Your task to perform on an android device: Do I have any events today? Image 0: 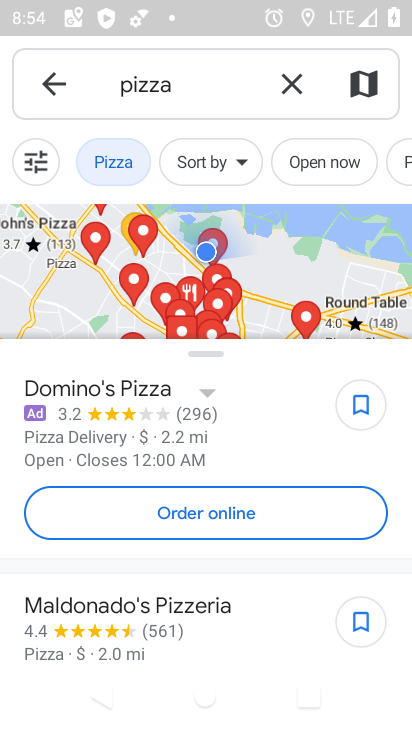
Step 0: press home button
Your task to perform on an android device: Do I have any events today? Image 1: 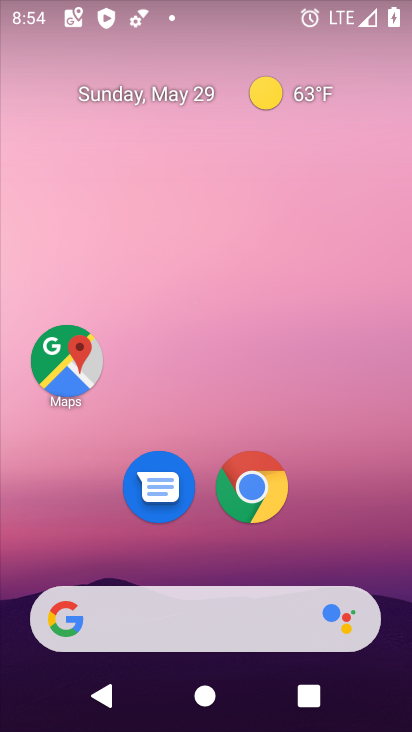
Step 1: drag from (256, 601) to (262, 106)
Your task to perform on an android device: Do I have any events today? Image 2: 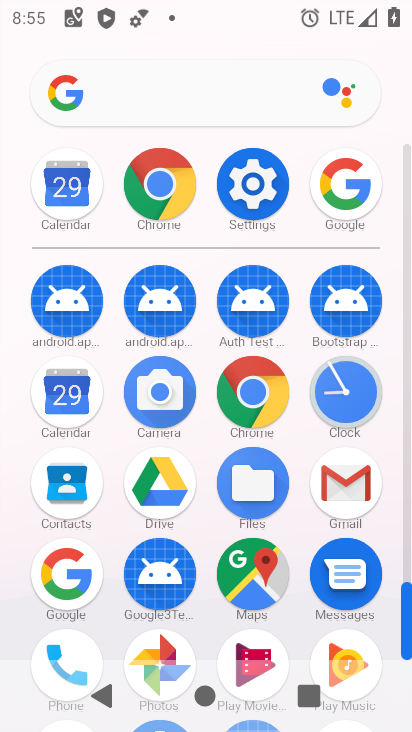
Step 2: click (79, 382)
Your task to perform on an android device: Do I have any events today? Image 3: 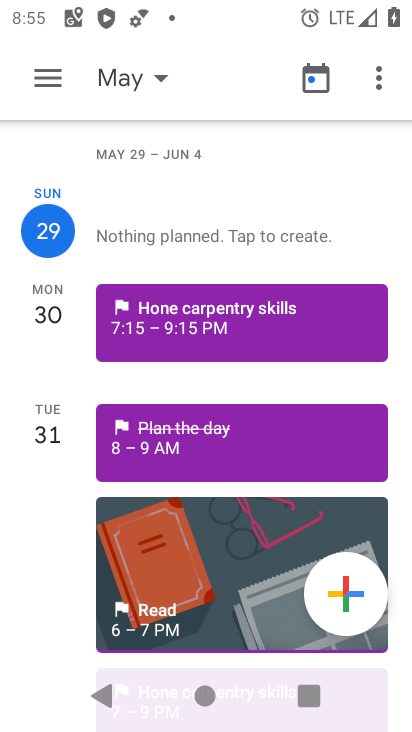
Step 3: task complete